Your task to perform on an android device: Open Google Maps Image 0: 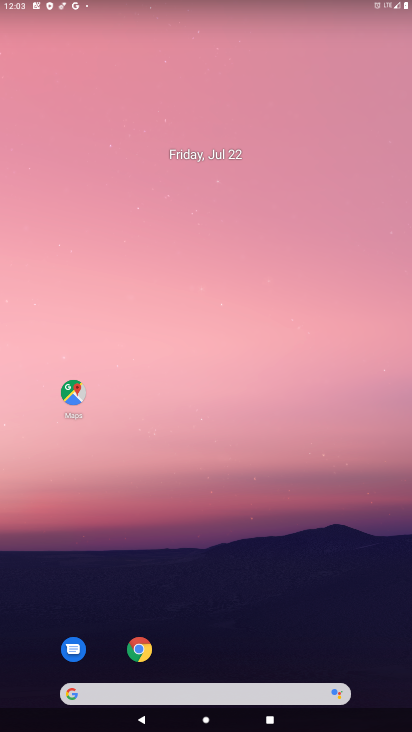
Step 0: drag from (232, 403) to (228, 57)
Your task to perform on an android device: Open Google Maps Image 1: 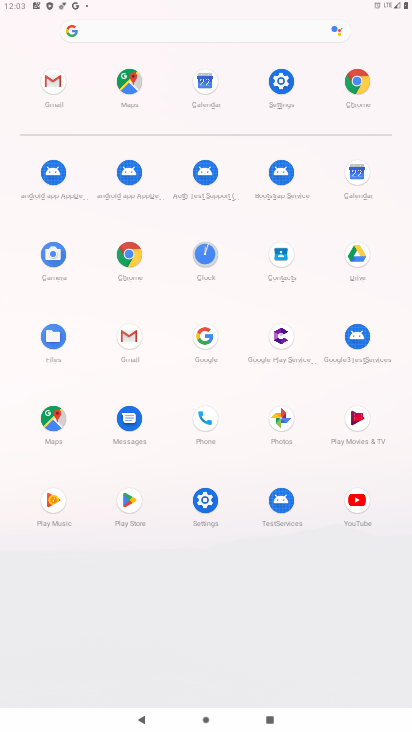
Step 1: click (129, 70)
Your task to perform on an android device: Open Google Maps Image 2: 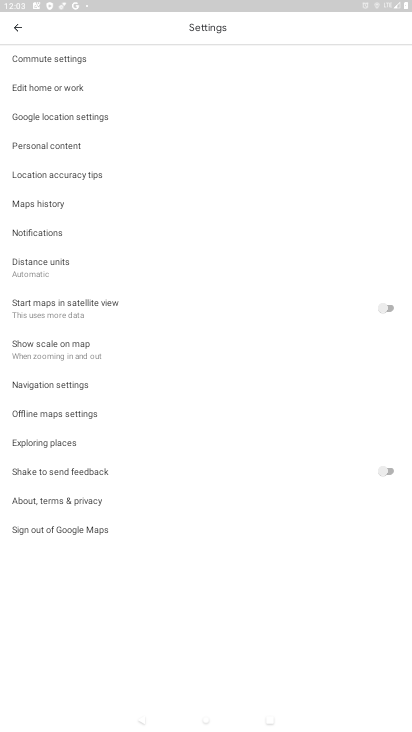
Step 2: task complete